Your task to perform on an android device: Clear the cart on walmart.com. Add "macbook pro 13 inch" to the cart on walmart.com Image 0: 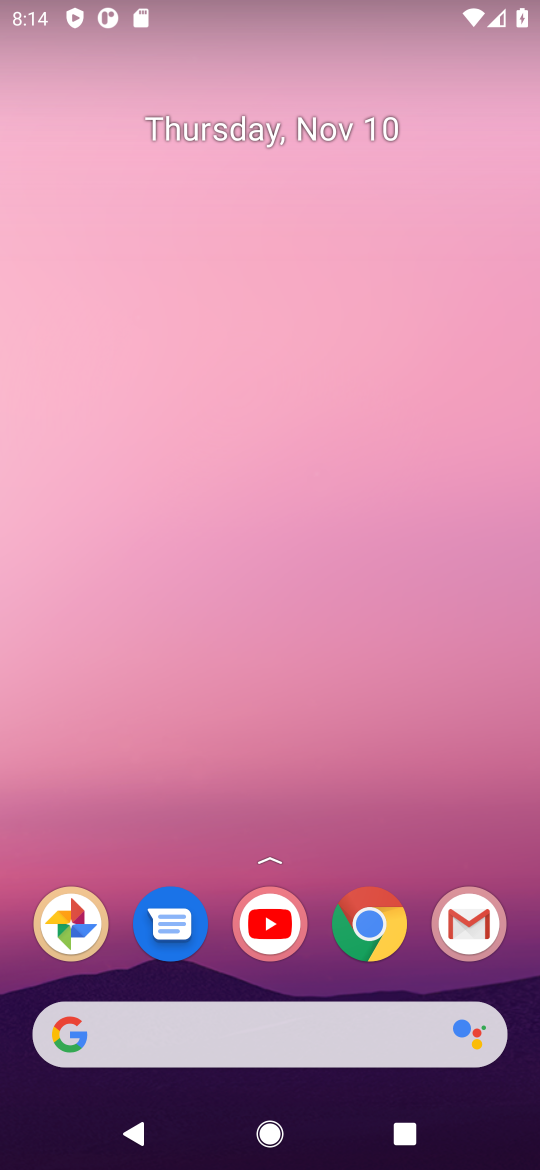
Step 0: click (378, 930)
Your task to perform on an android device: Clear the cart on walmart.com. Add "macbook pro 13 inch" to the cart on walmart.com Image 1: 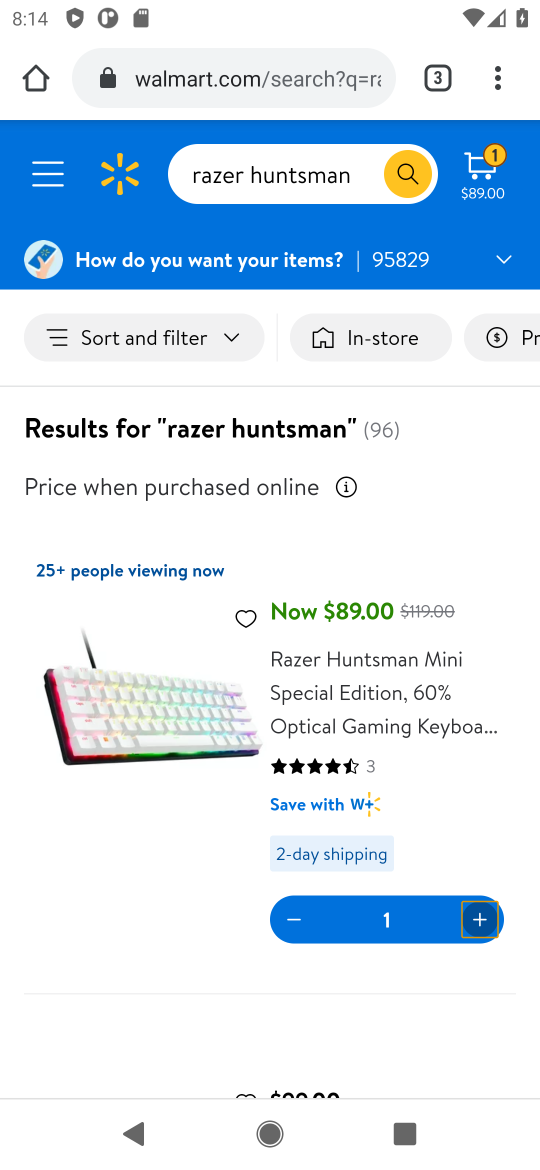
Step 1: click (479, 179)
Your task to perform on an android device: Clear the cart on walmart.com. Add "macbook pro 13 inch" to the cart on walmart.com Image 2: 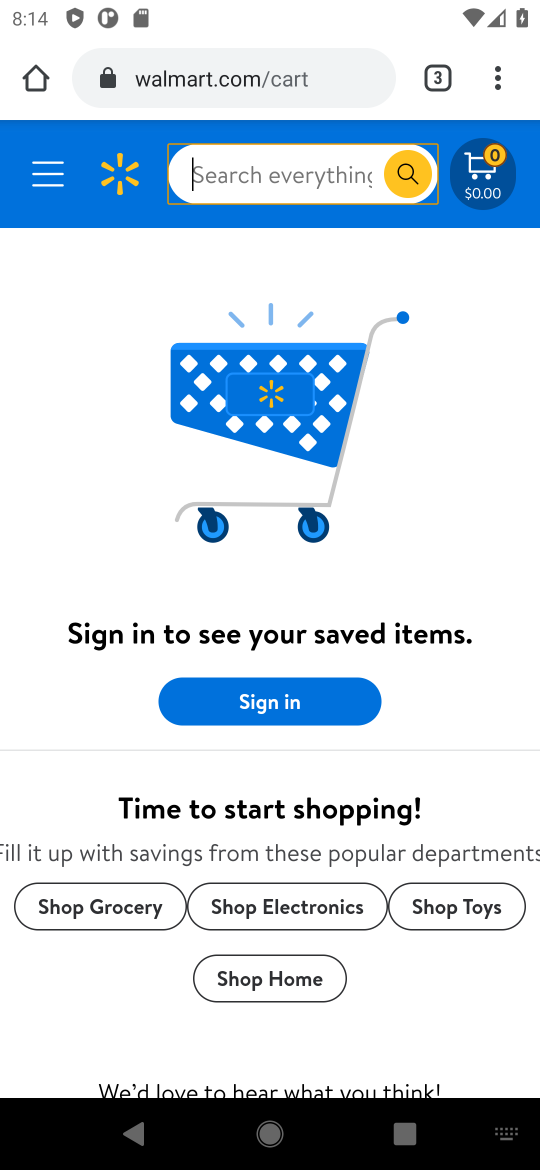
Step 2: click (215, 181)
Your task to perform on an android device: Clear the cart on walmart.com. Add "macbook pro 13 inch" to the cart on walmart.com Image 3: 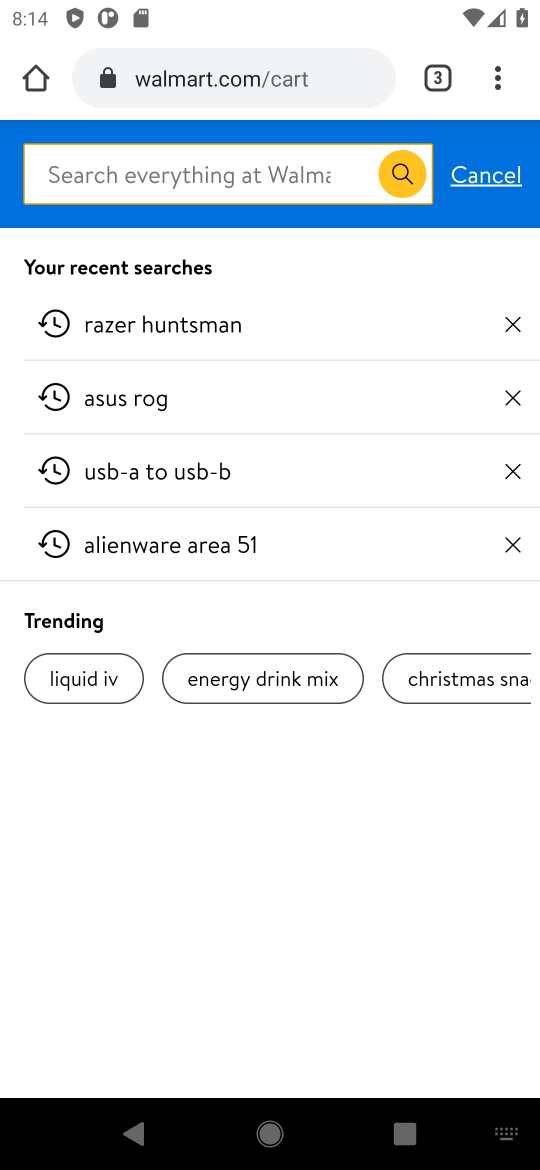
Step 3: type "macbook pro 13 inch"
Your task to perform on an android device: Clear the cart on walmart.com. Add "macbook pro 13 inch" to the cart on walmart.com Image 4: 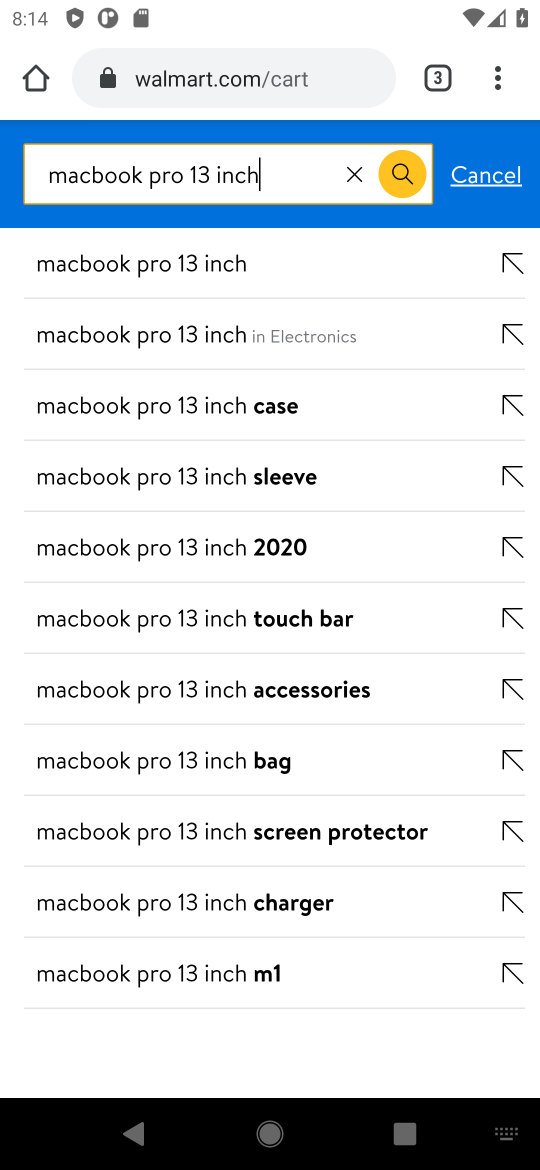
Step 4: click (205, 267)
Your task to perform on an android device: Clear the cart on walmart.com. Add "macbook pro 13 inch" to the cart on walmart.com Image 5: 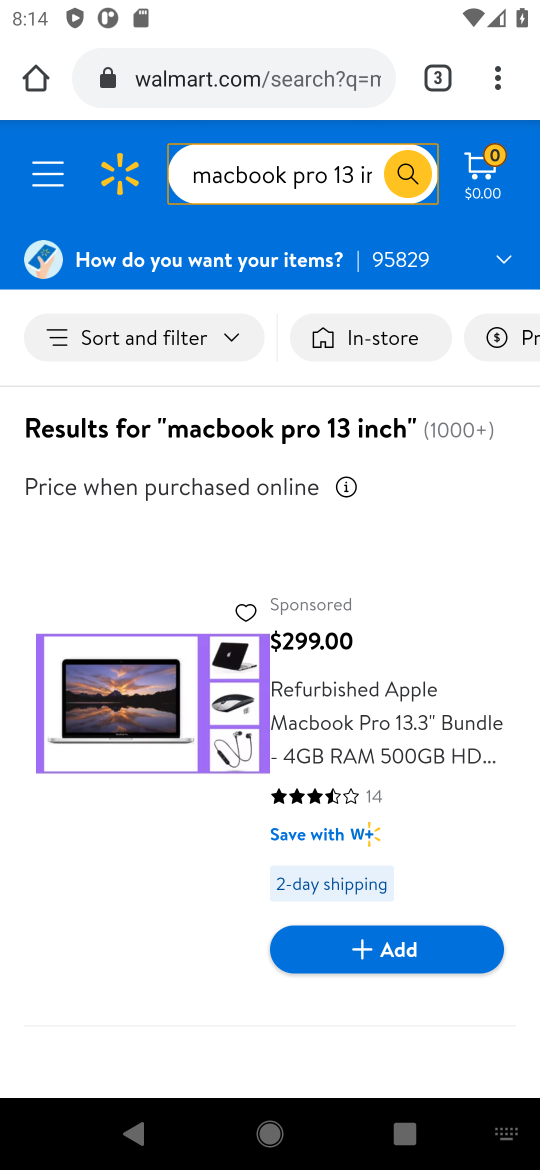
Step 5: drag from (172, 782) to (156, 369)
Your task to perform on an android device: Clear the cart on walmart.com. Add "macbook pro 13 inch" to the cart on walmart.com Image 6: 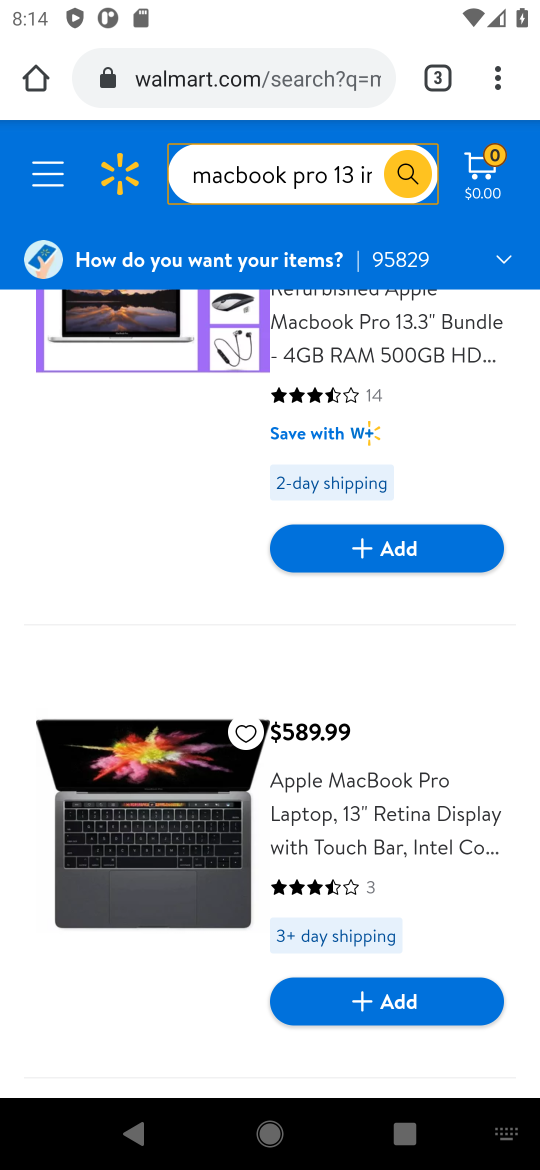
Step 6: click (419, 1004)
Your task to perform on an android device: Clear the cart on walmart.com. Add "macbook pro 13 inch" to the cart on walmart.com Image 7: 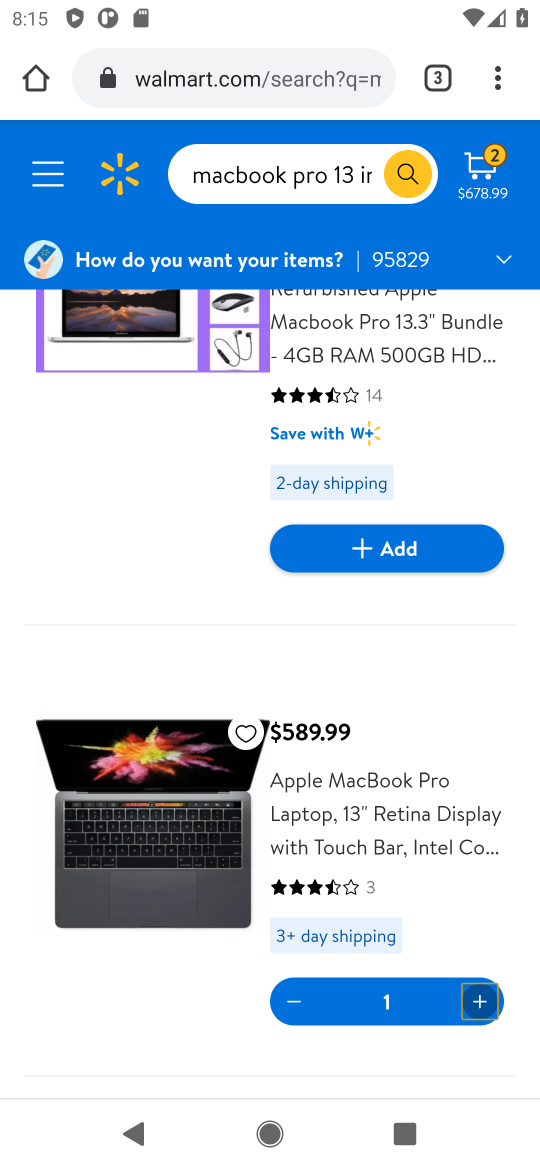
Step 7: task complete